Your task to perform on an android device: turn notification dots off Image 0: 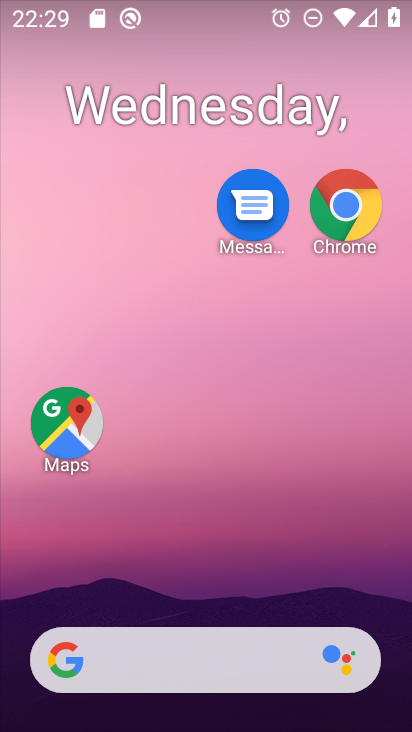
Step 0: drag from (203, 569) to (166, 228)
Your task to perform on an android device: turn notification dots off Image 1: 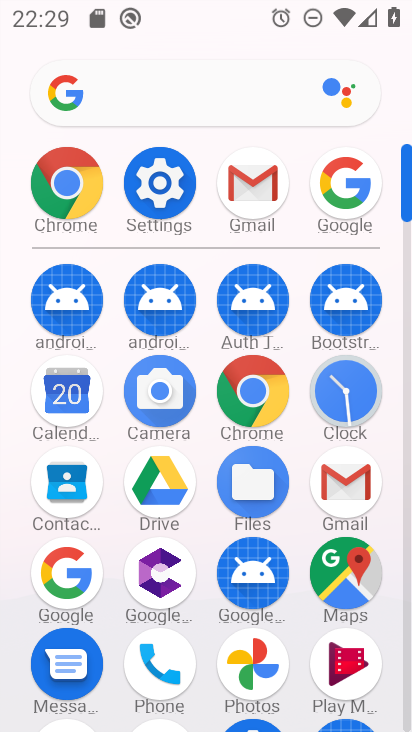
Step 1: click (149, 170)
Your task to perform on an android device: turn notification dots off Image 2: 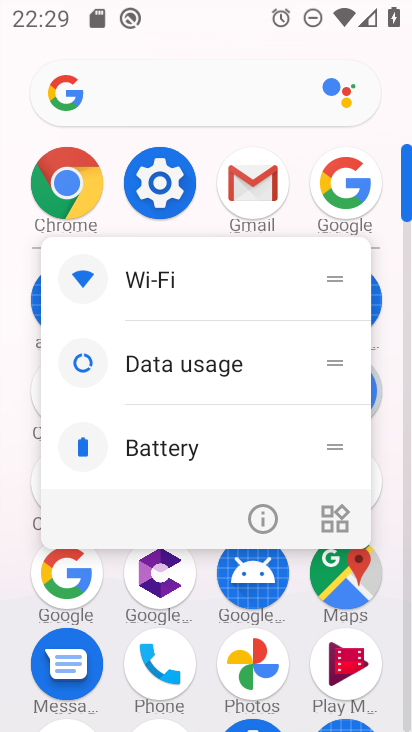
Step 2: click (258, 512)
Your task to perform on an android device: turn notification dots off Image 3: 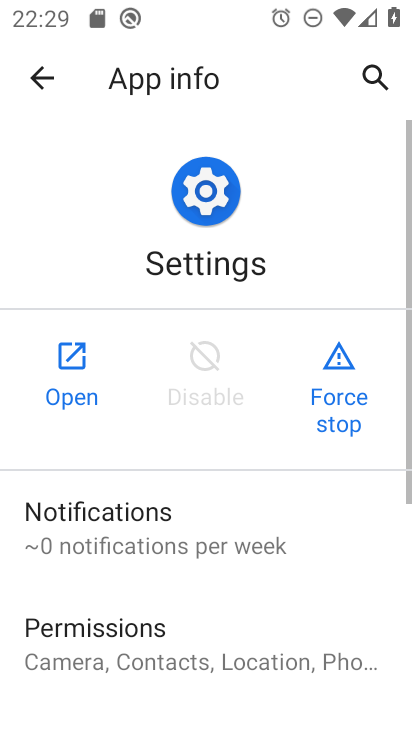
Step 3: click (70, 380)
Your task to perform on an android device: turn notification dots off Image 4: 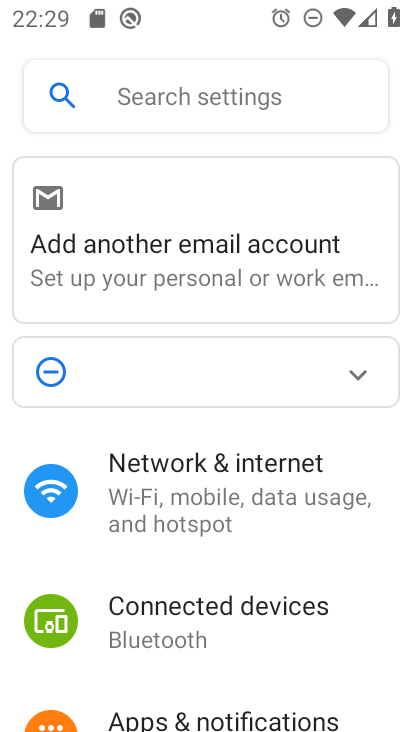
Step 4: click (224, 703)
Your task to perform on an android device: turn notification dots off Image 5: 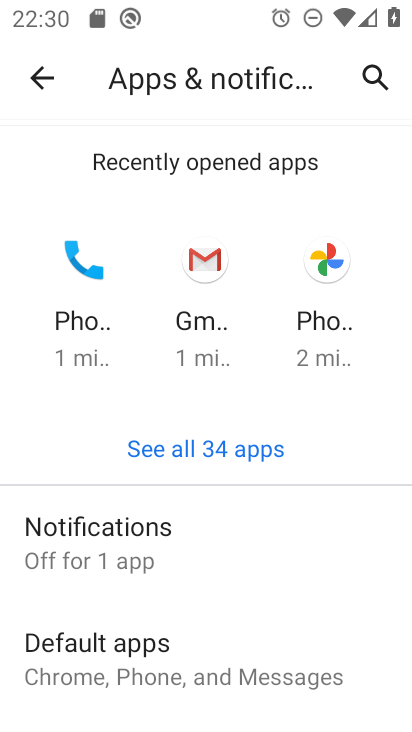
Step 5: click (181, 564)
Your task to perform on an android device: turn notification dots off Image 6: 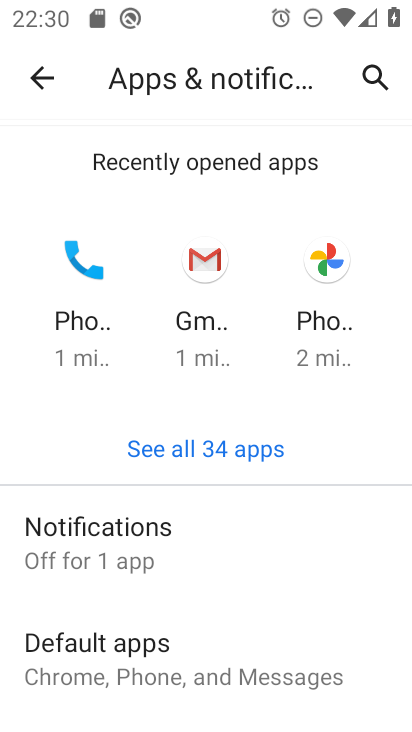
Step 6: drag from (286, 576) to (276, 66)
Your task to perform on an android device: turn notification dots off Image 7: 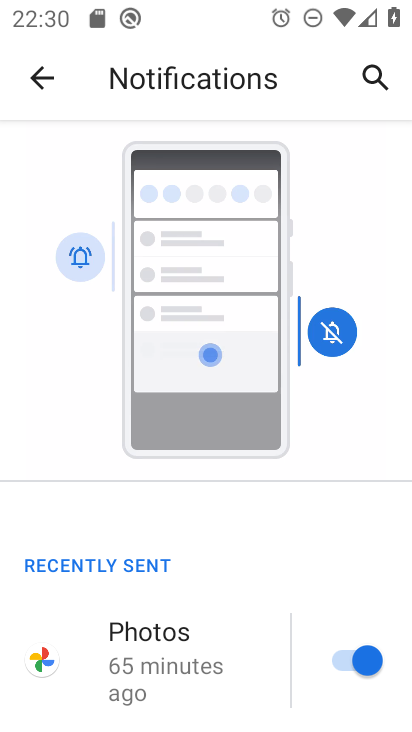
Step 7: drag from (231, 617) to (315, 164)
Your task to perform on an android device: turn notification dots off Image 8: 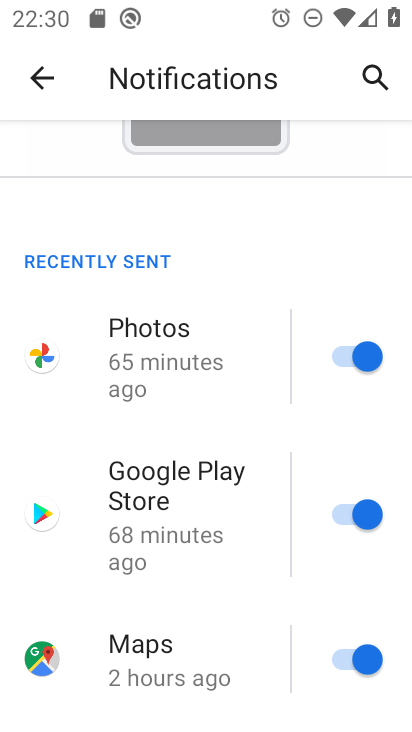
Step 8: drag from (301, 549) to (377, 156)
Your task to perform on an android device: turn notification dots off Image 9: 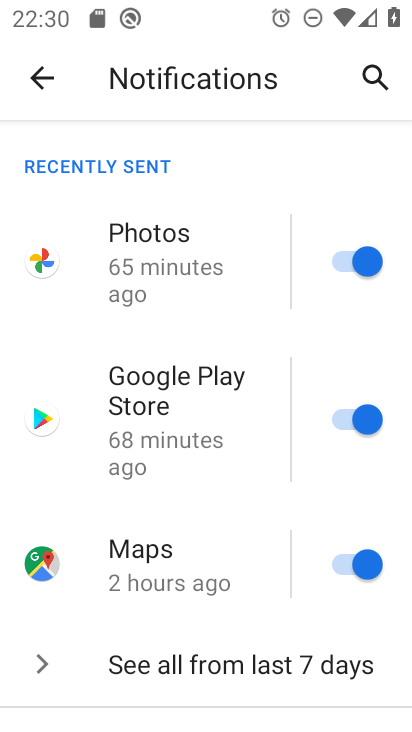
Step 9: drag from (275, 595) to (366, 262)
Your task to perform on an android device: turn notification dots off Image 10: 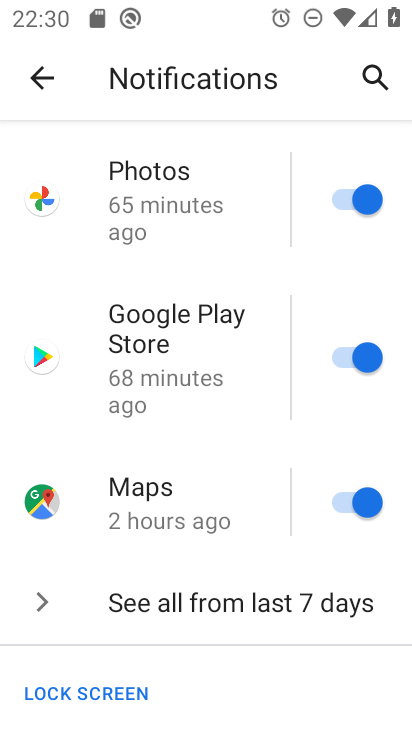
Step 10: drag from (221, 560) to (312, 6)
Your task to perform on an android device: turn notification dots off Image 11: 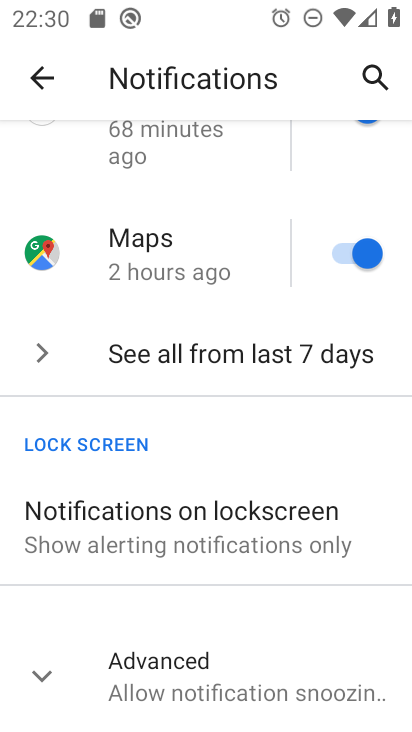
Step 11: click (203, 698)
Your task to perform on an android device: turn notification dots off Image 12: 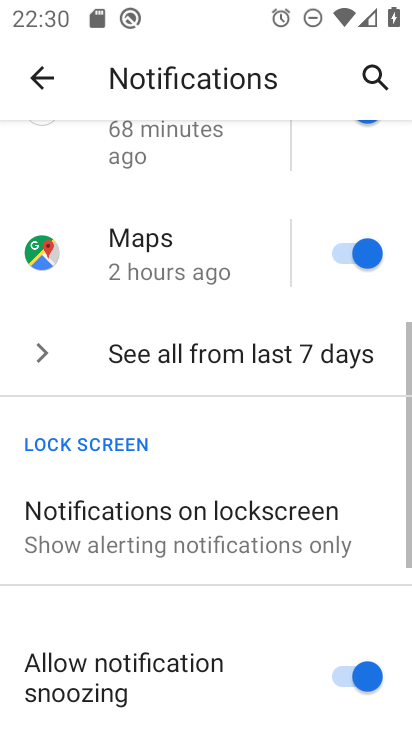
Step 12: drag from (211, 679) to (328, 119)
Your task to perform on an android device: turn notification dots off Image 13: 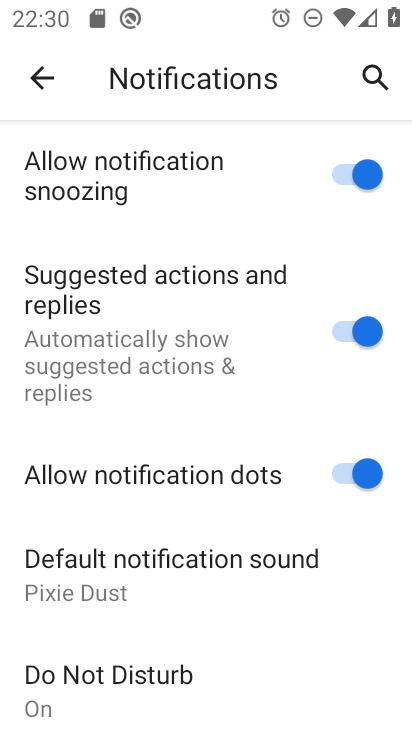
Step 13: click (349, 465)
Your task to perform on an android device: turn notification dots off Image 14: 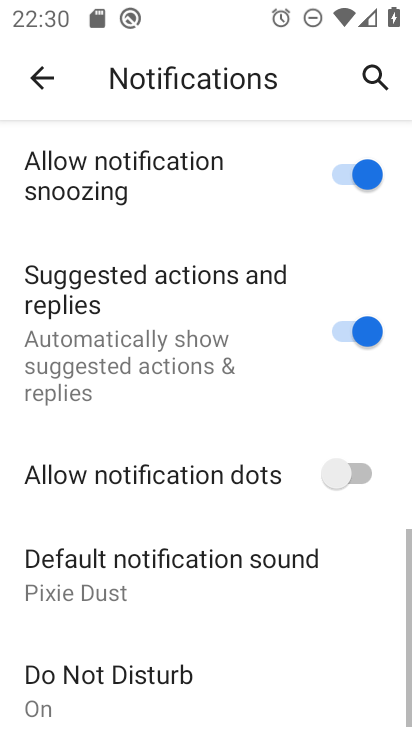
Step 14: task complete